Your task to perform on an android device: turn off notifications settings in the gmail app Image 0: 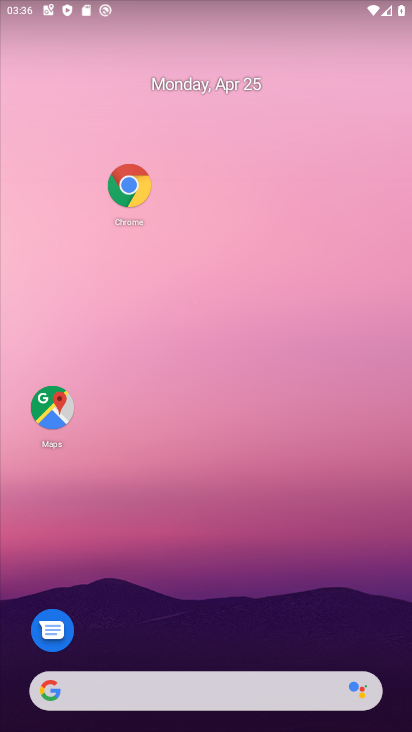
Step 0: drag from (149, 380) to (171, 205)
Your task to perform on an android device: turn off notifications settings in the gmail app Image 1: 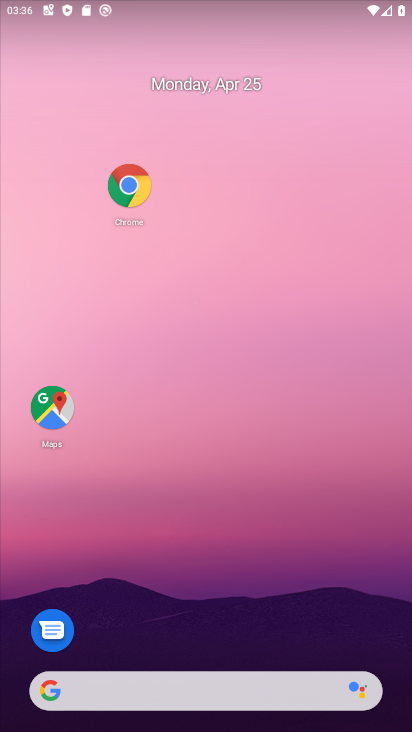
Step 1: drag from (146, 499) to (162, 128)
Your task to perform on an android device: turn off notifications settings in the gmail app Image 2: 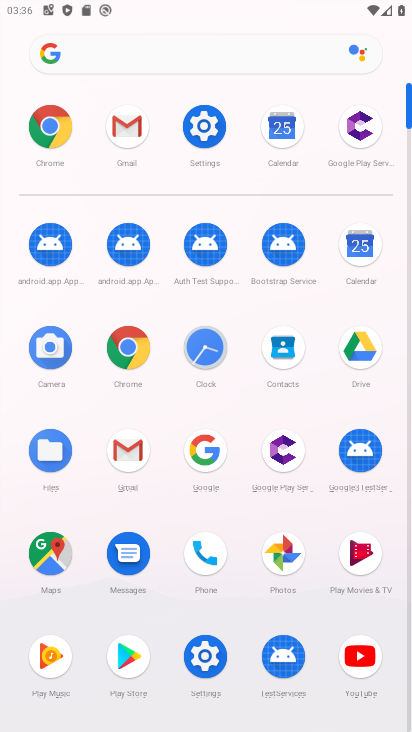
Step 2: click (129, 129)
Your task to perform on an android device: turn off notifications settings in the gmail app Image 3: 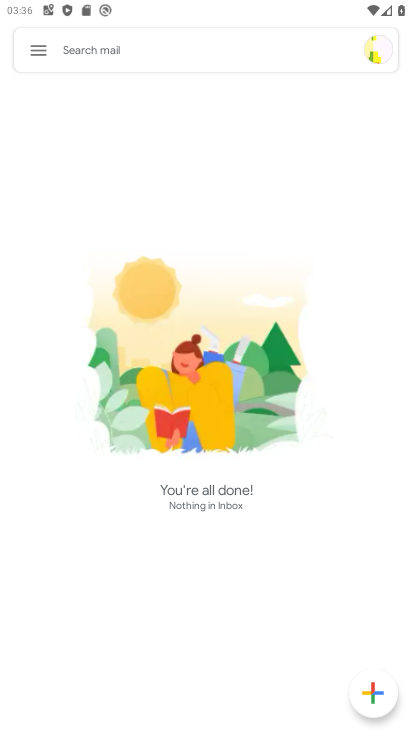
Step 3: click (37, 55)
Your task to perform on an android device: turn off notifications settings in the gmail app Image 4: 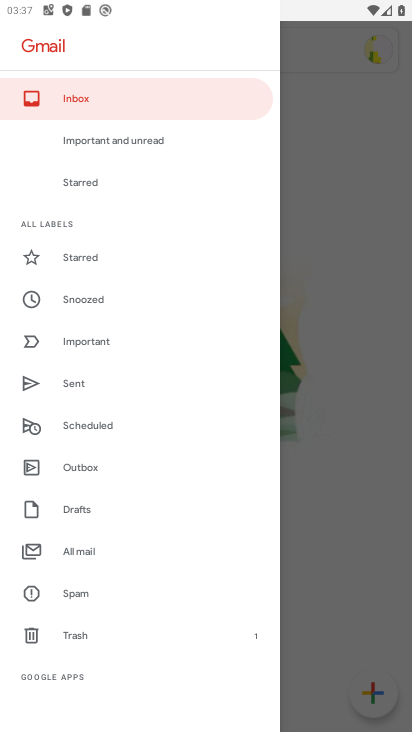
Step 4: drag from (79, 579) to (79, 191)
Your task to perform on an android device: turn off notifications settings in the gmail app Image 5: 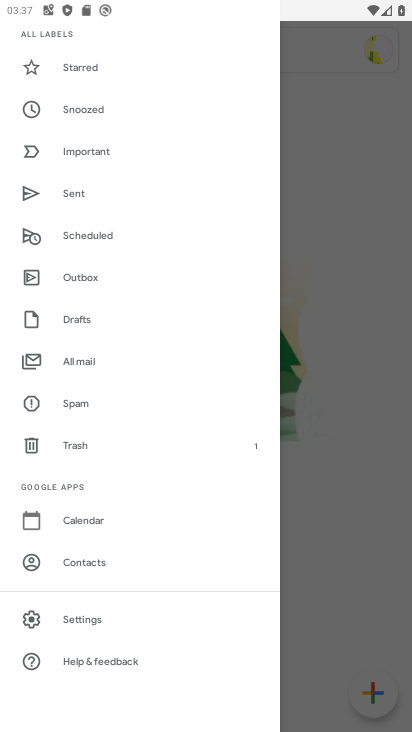
Step 5: click (59, 620)
Your task to perform on an android device: turn off notifications settings in the gmail app Image 6: 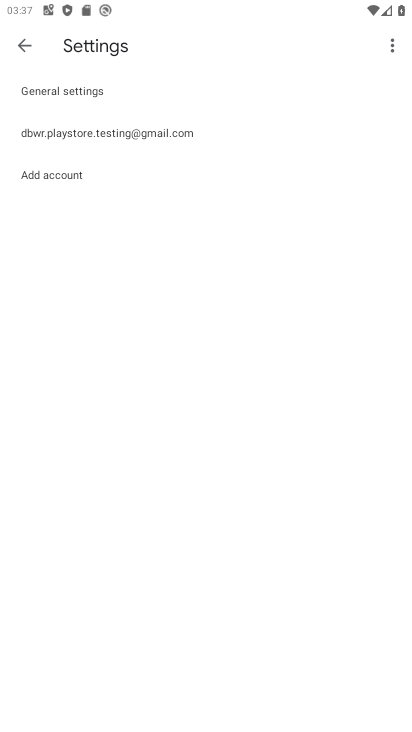
Step 6: click (161, 138)
Your task to perform on an android device: turn off notifications settings in the gmail app Image 7: 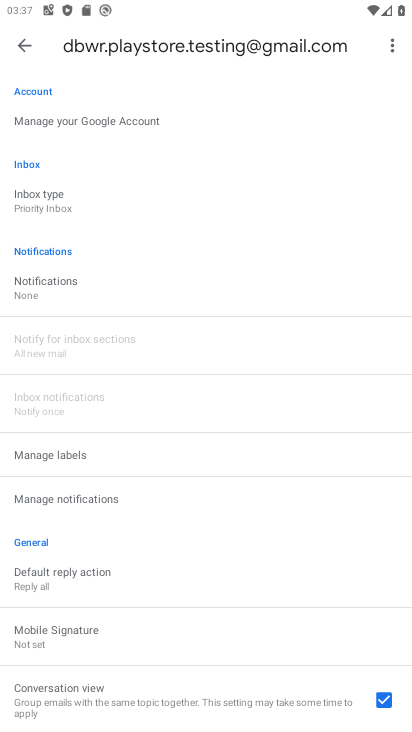
Step 7: click (44, 293)
Your task to perform on an android device: turn off notifications settings in the gmail app Image 8: 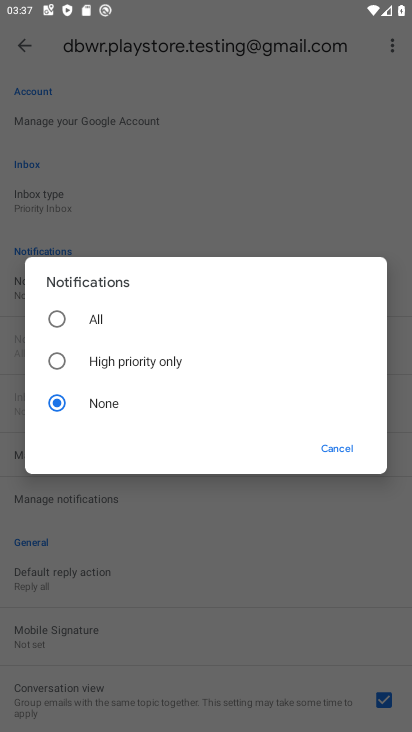
Step 8: task complete